Your task to perform on an android device: Turn off the flashlight Image 0: 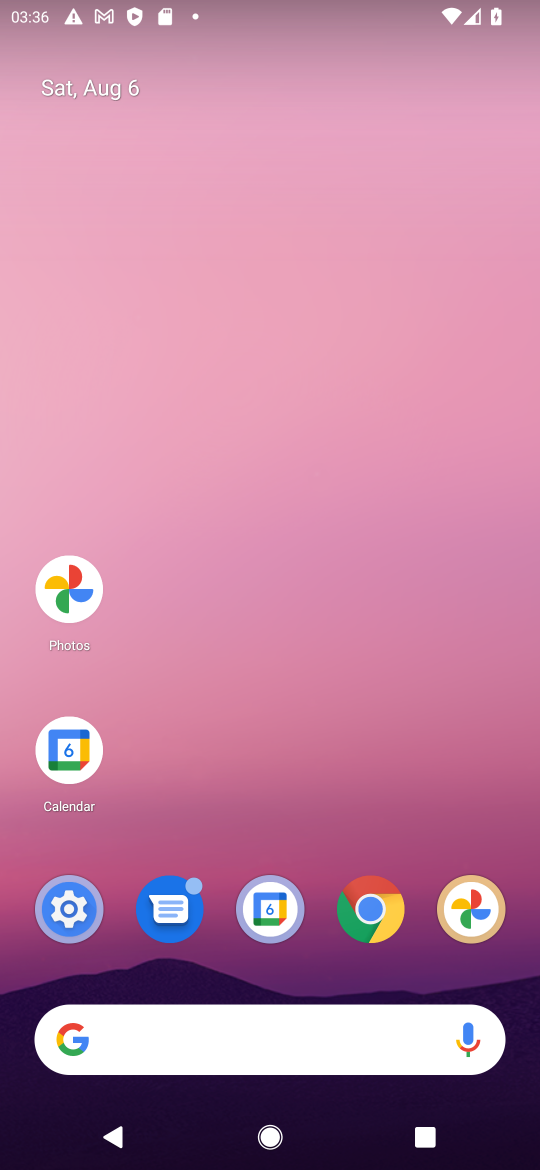
Step 0: click (65, 917)
Your task to perform on an android device: Turn off the flashlight Image 1: 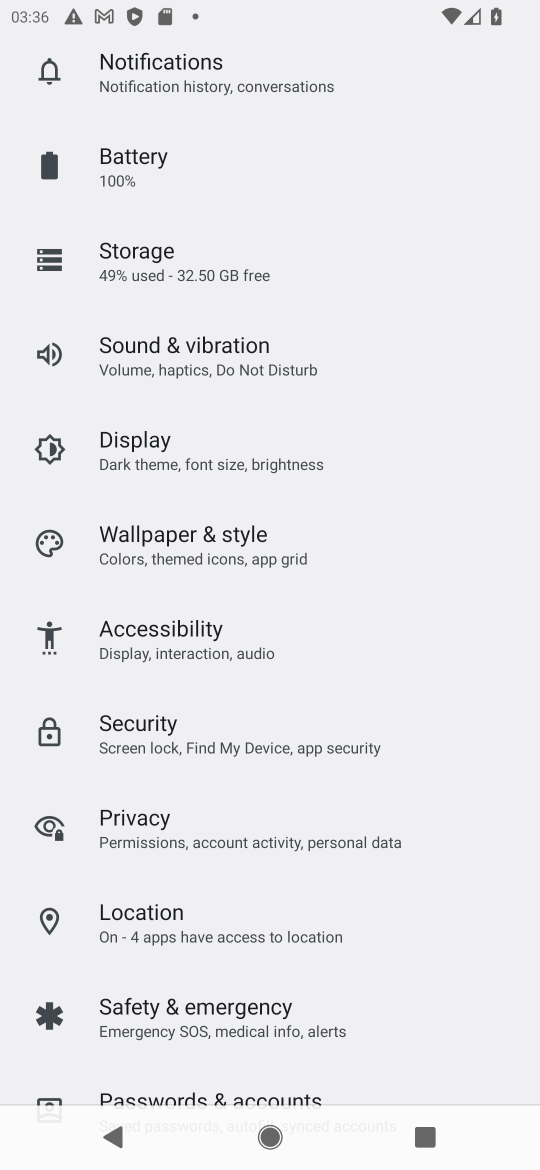
Step 1: click (134, 442)
Your task to perform on an android device: Turn off the flashlight Image 2: 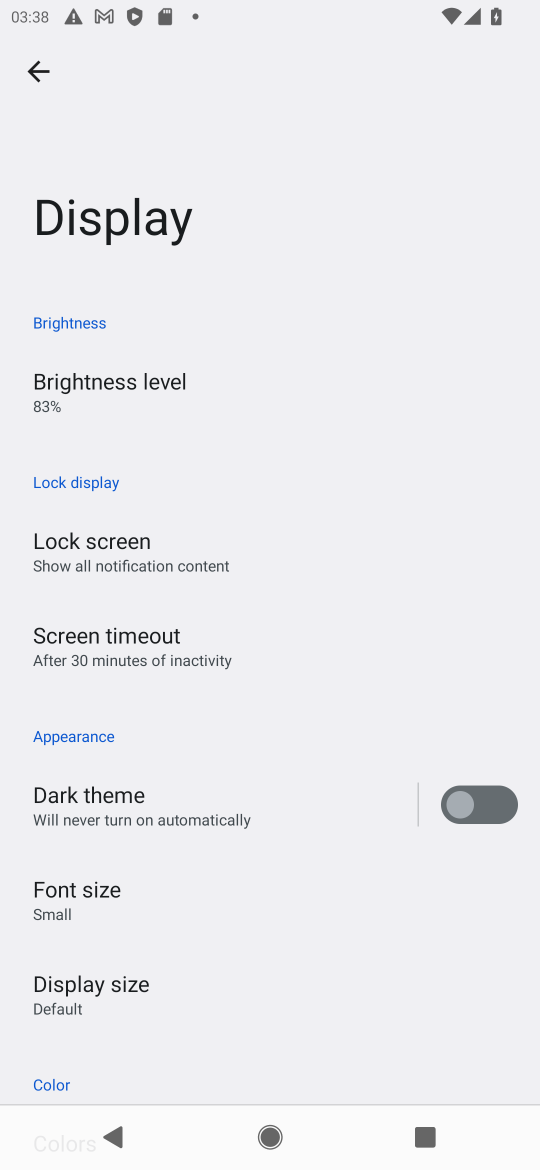
Step 2: task complete